Your task to perform on an android device: Go to Maps Image 0: 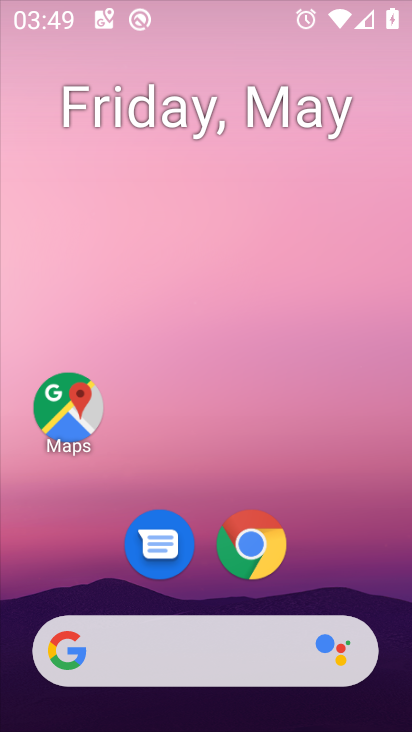
Step 0: drag from (335, 711) to (173, 76)
Your task to perform on an android device: Go to Maps Image 1: 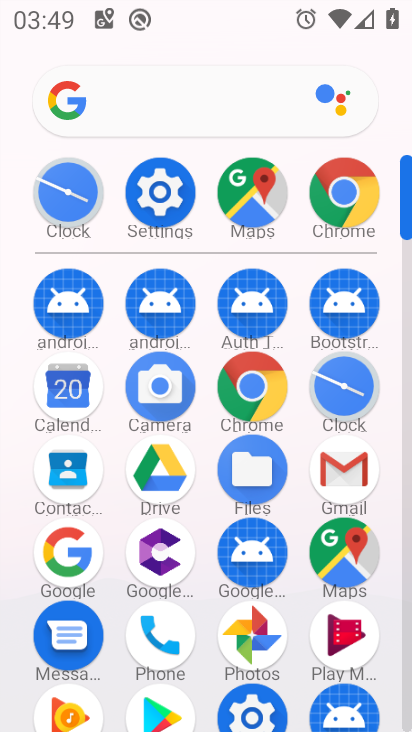
Step 1: click (253, 191)
Your task to perform on an android device: Go to Maps Image 2: 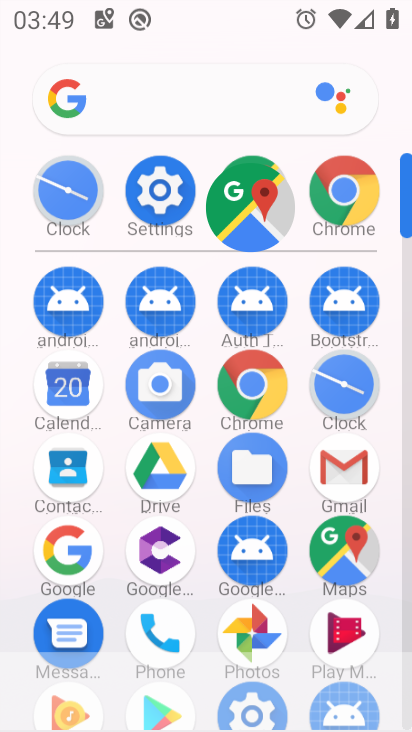
Step 2: click (253, 191)
Your task to perform on an android device: Go to Maps Image 3: 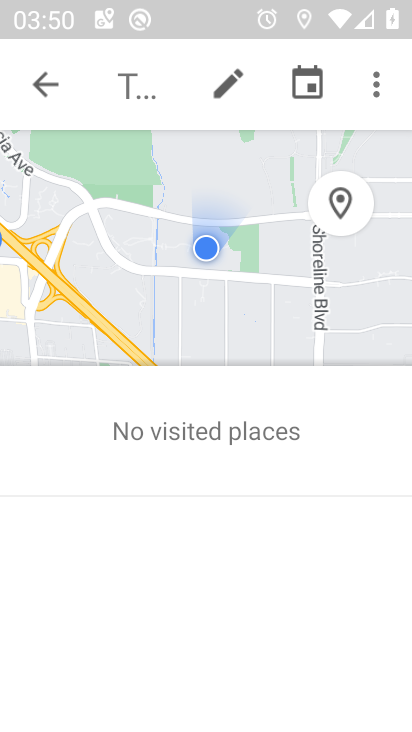
Step 3: task complete